Your task to perform on an android device: Open ESPN.com Image 0: 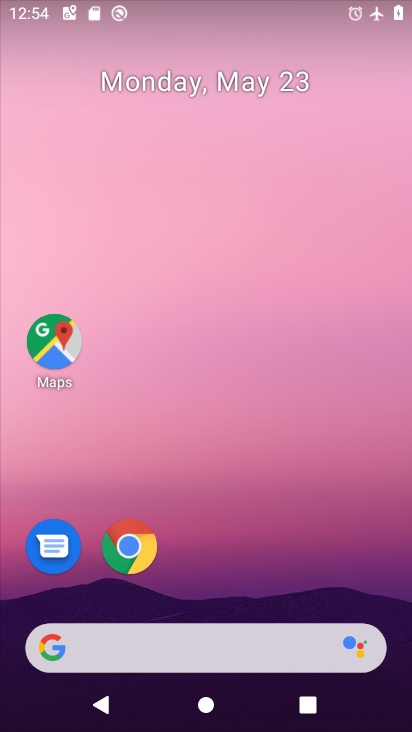
Step 0: drag from (205, 611) to (229, 94)
Your task to perform on an android device: Open ESPN.com Image 1: 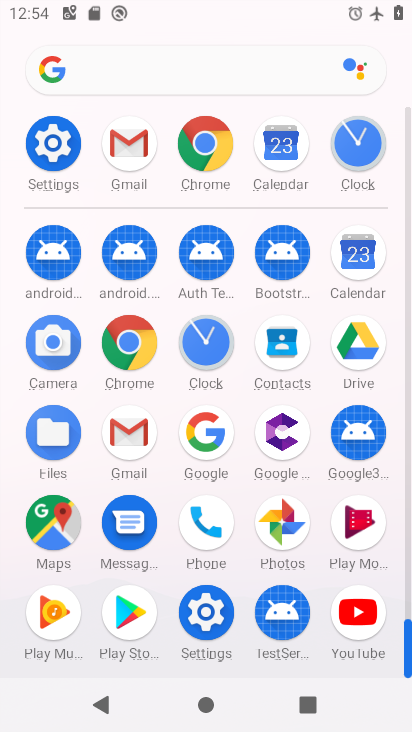
Step 1: click (197, 138)
Your task to perform on an android device: Open ESPN.com Image 2: 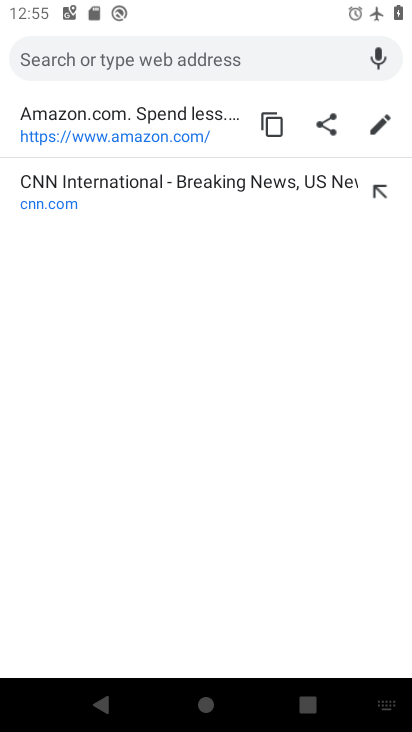
Step 2: task complete